Your task to perform on an android device: turn on bluetooth scan Image 0: 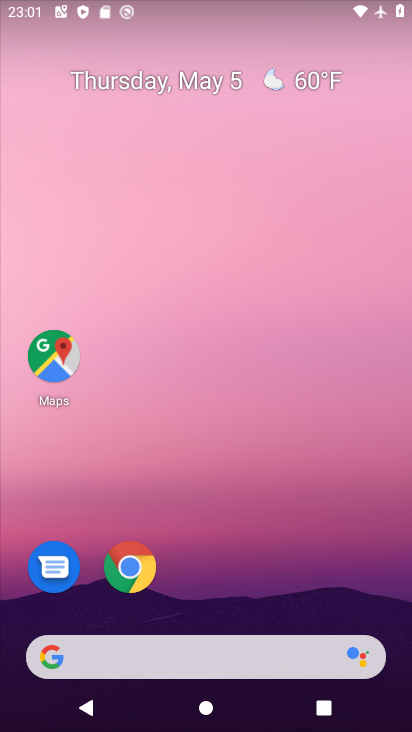
Step 0: drag from (195, 608) to (196, 188)
Your task to perform on an android device: turn on bluetooth scan Image 1: 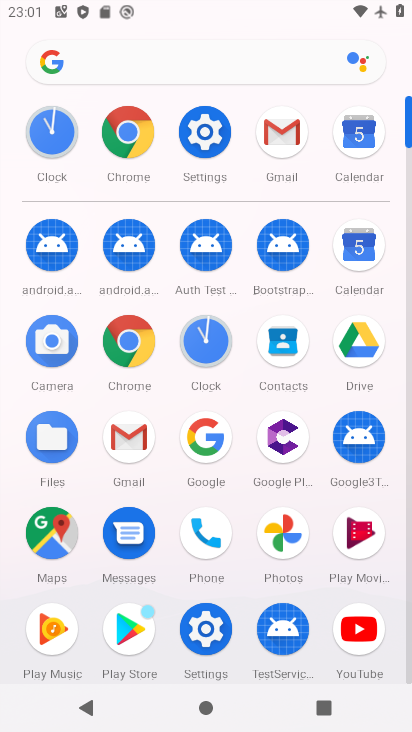
Step 1: click (196, 143)
Your task to perform on an android device: turn on bluetooth scan Image 2: 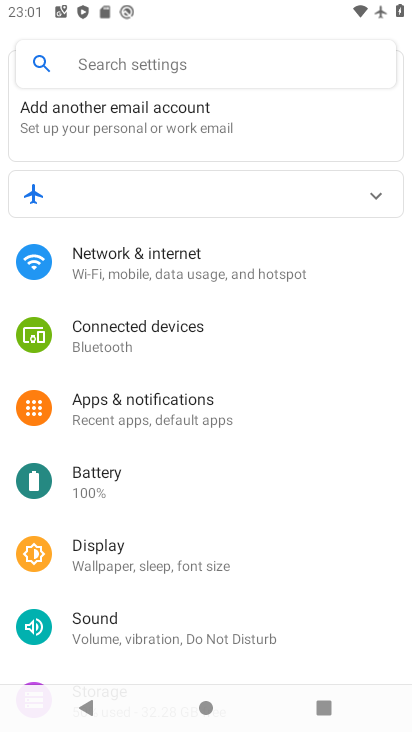
Step 2: drag from (213, 589) to (222, 379)
Your task to perform on an android device: turn on bluetooth scan Image 3: 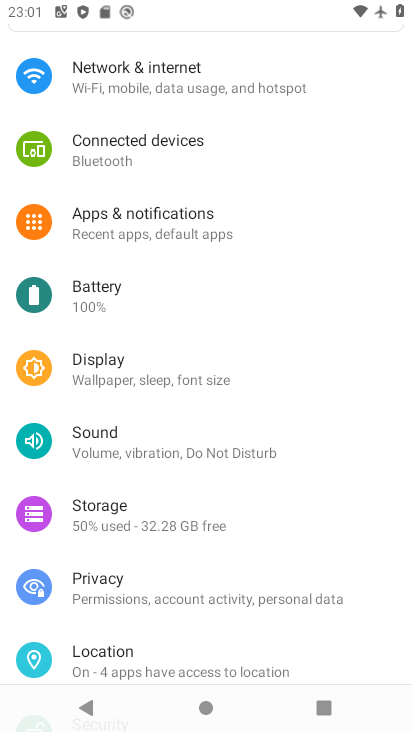
Step 3: click (184, 650)
Your task to perform on an android device: turn on bluetooth scan Image 4: 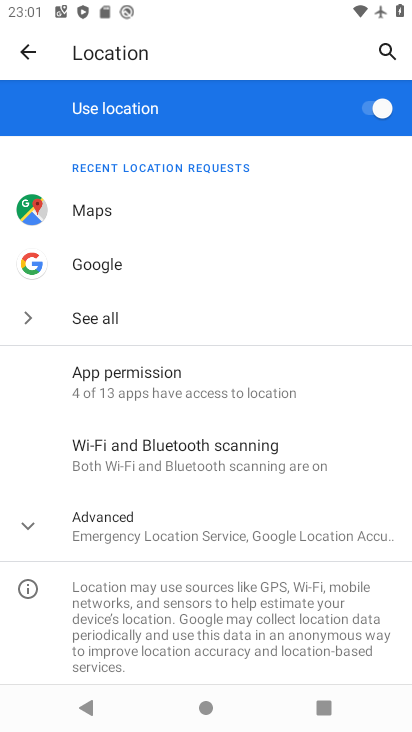
Step 4: click (203, 460)
Your task to perform on an android device: turn on bluetooth scan Image 5: 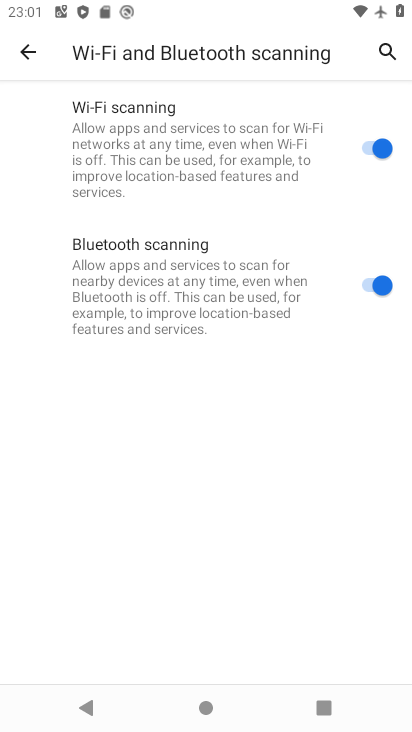
Step 5: task complete